Your task to perform on an android device: Go to Reddit.com Image 0: 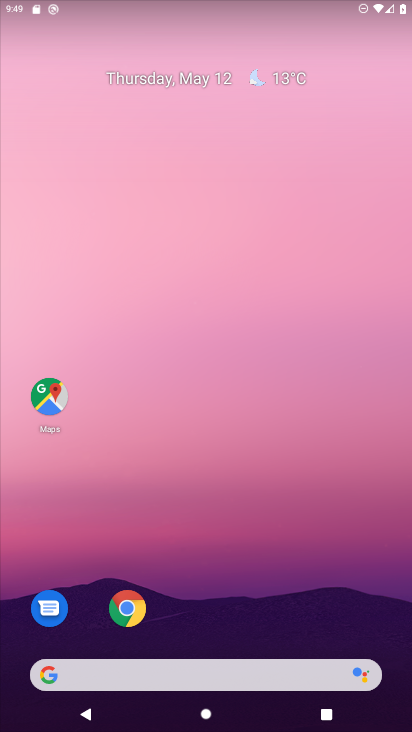
Step 0: drag from (229, 624) to (214, 91)
Your task to perform on an android device: Go to Reddit.com Image 1: 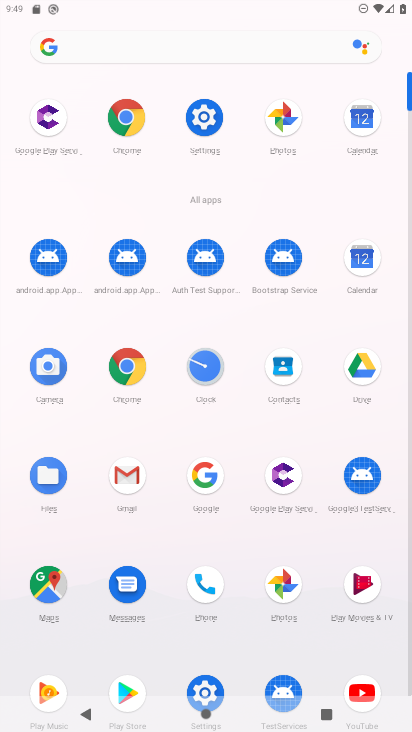
Step 1: click (208, 470)
Your task to perform on an android device: Go to Reddit.com Image 2: 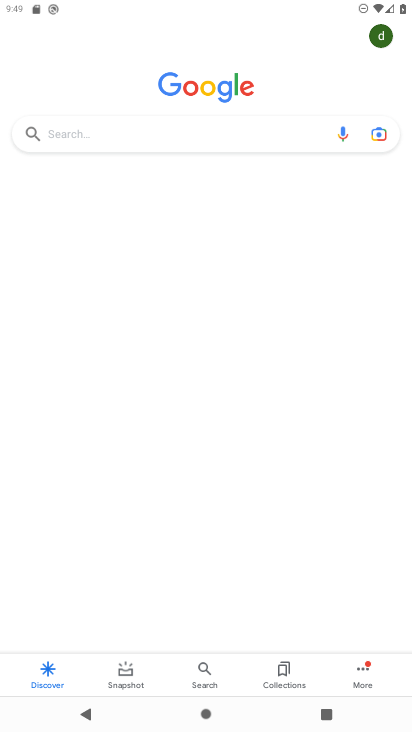
Step 2: click (162, 132)
Your task to perform on an android device: Go to Reddit.com Image 3: 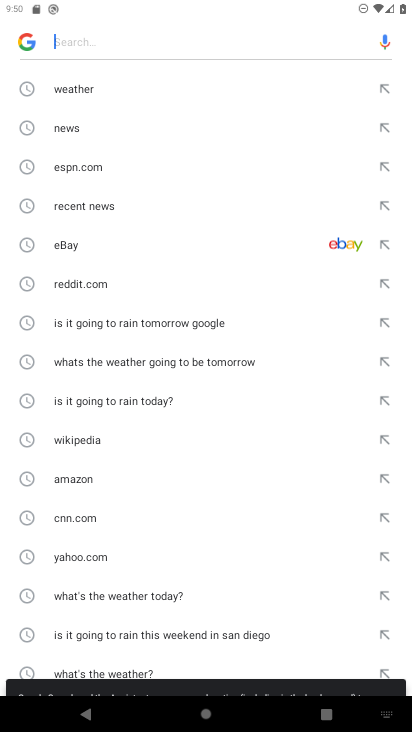
Step 3: click (87, 281)
Your task to perform on an android device: Go to Reddit.com Image 4: 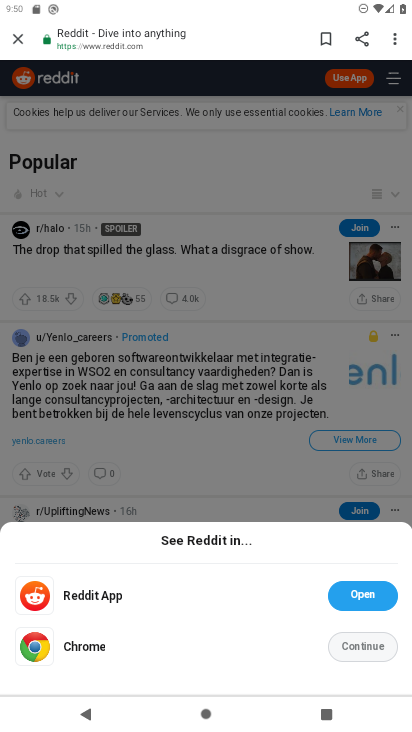
Step 4: task complete